Your task to perform on an android device: toggle wifi Image 0: 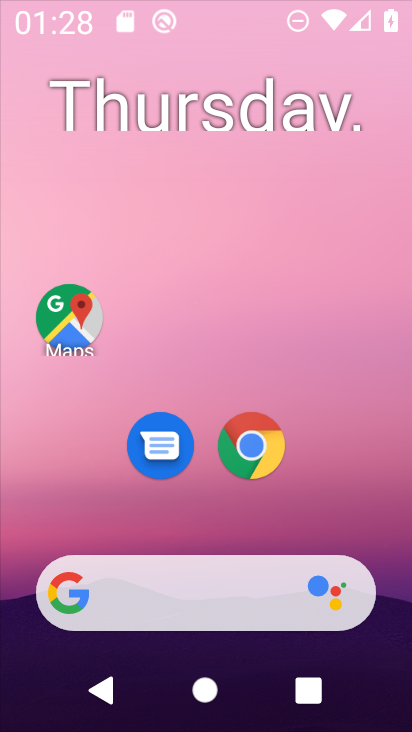
Step 0: drag from (167, 652) to (171, 231)
Your task to perform on an android device: toggle wifi Image 1: 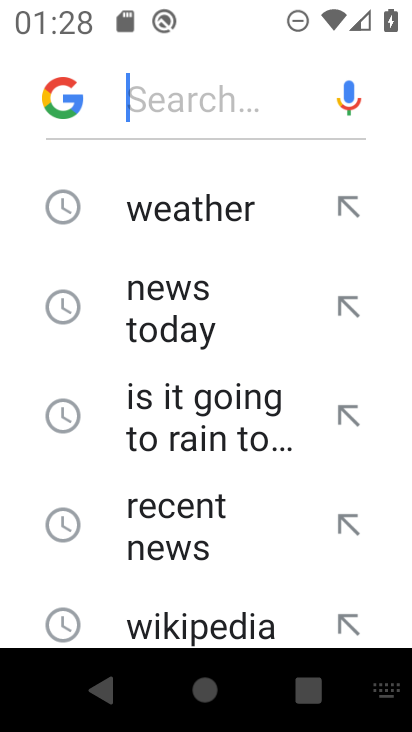
Step 1: drag from (222, 10) to (140, 660)
Your task to perform on an android device: toggle wifi Image 2: 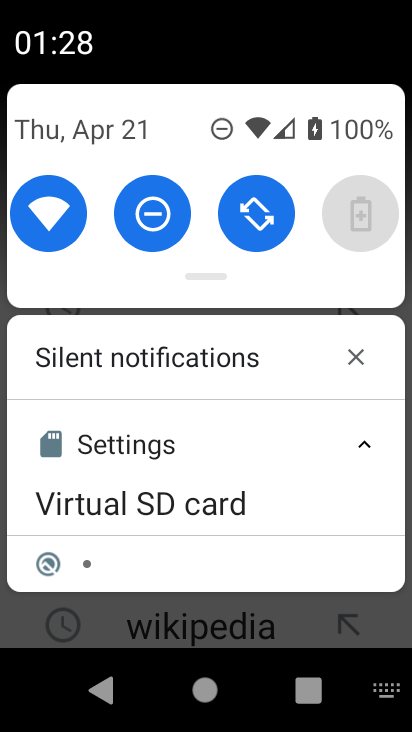
Step 2: click (60, 227)
Your task to perform on an android device: toggle wifi Image 3: 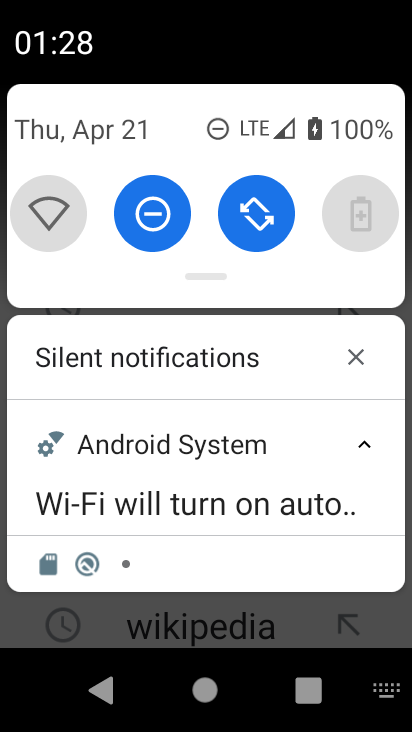
Step 3: click (60, 227)
Your task to perform on an android device: toggle wifi Image 4: 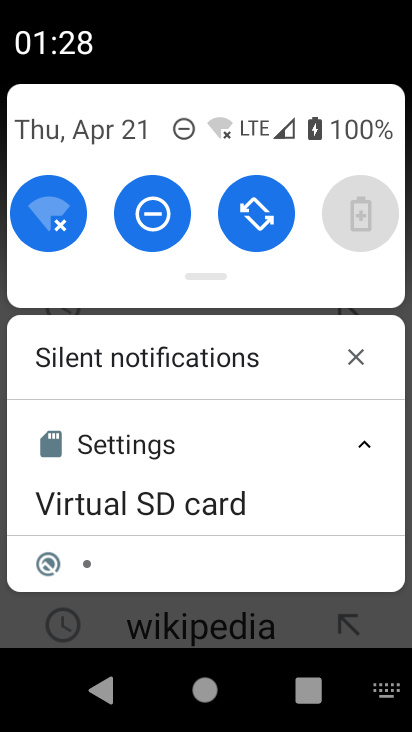
Step 4: task complete